Your task to perform on an android device: set the timer Image 0: 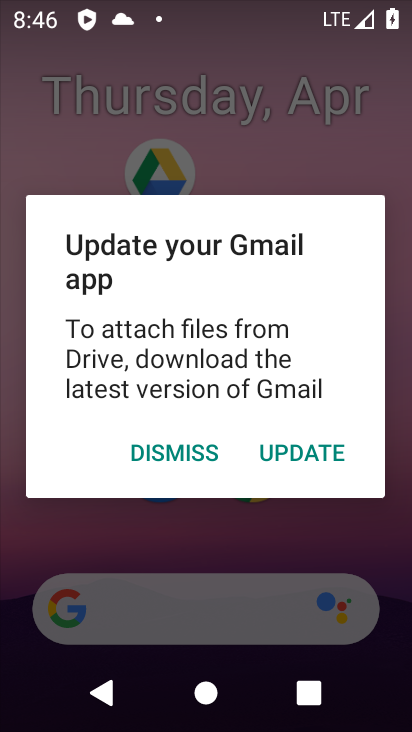
Step 0: press back button
Your task to perform on an android device: set the timer Image 1: 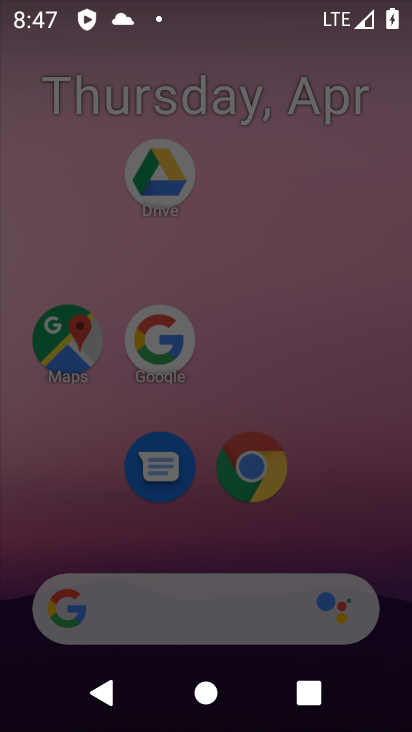
Step 1: press back button
Your task to perform on an android device: set the timer Image 2: 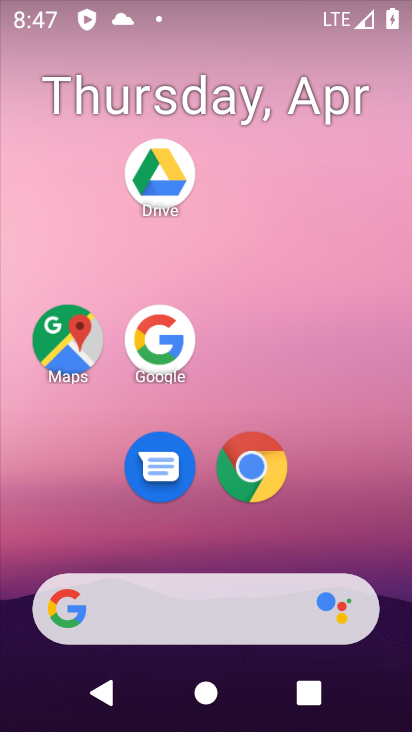
Step 2: drag from (217, 588) to (294, 268)
Your task to perform on an android device: set the timer Image 3: 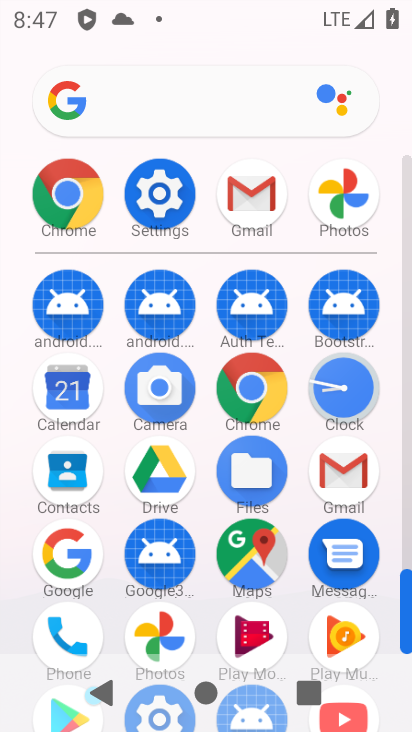
Step 3: click (331, 392)
Your task to perform on an android device: set the timer Image 4: 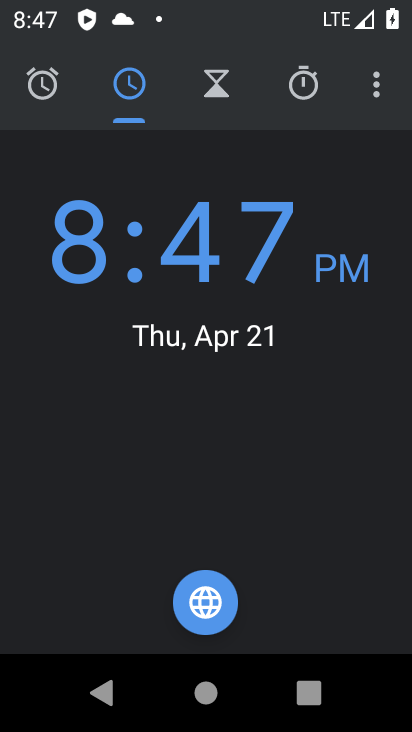
Step 4: click (219, 82)
Your task to perform on an android device: set the timer Image 5: 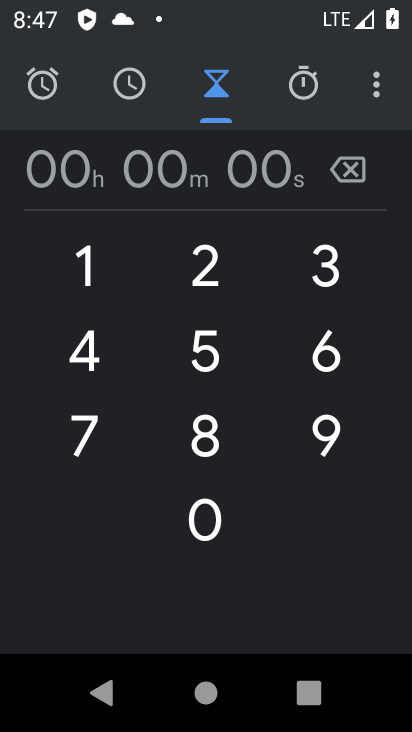
Step 5: click (211, 413)
Your task to perform on an android device: set the timer Image 6: 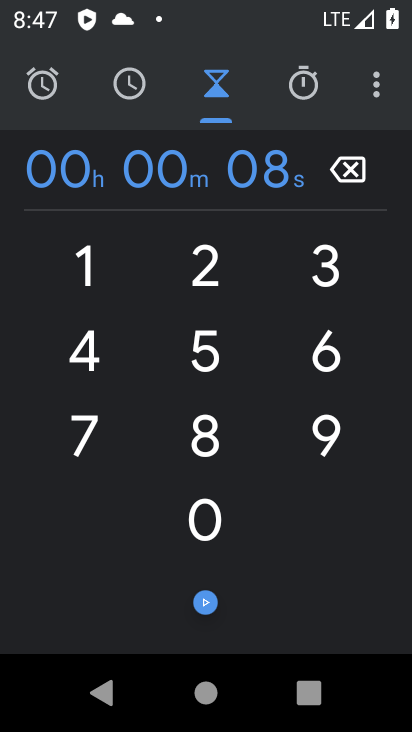
Step 6: click (208, 356)
Your task to perform on an android device: set the timer Image 7: 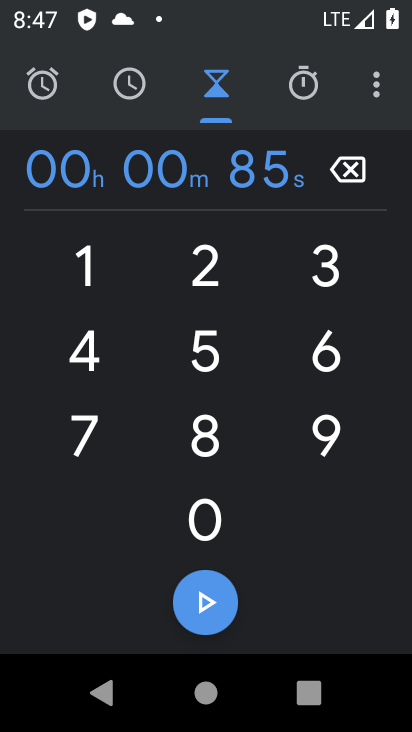
Step 7: click (216, 277)
Your task to perform on an android device: set the timer Image 8: 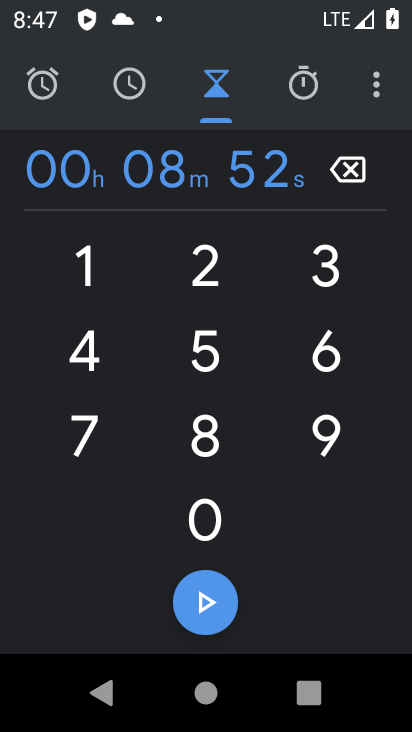
Step 8: click (201, 589)
Your task to perform on an android device: set the timer Image 9: 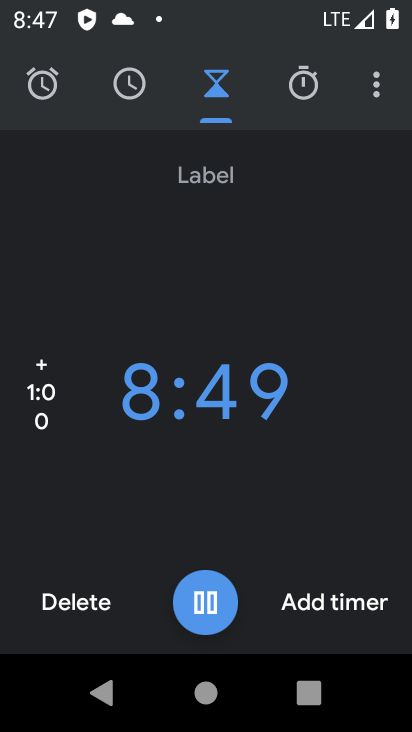
Step 9: task complete